Your task to perform on an android device: Search for sushi restaurants on Maps Image 0: 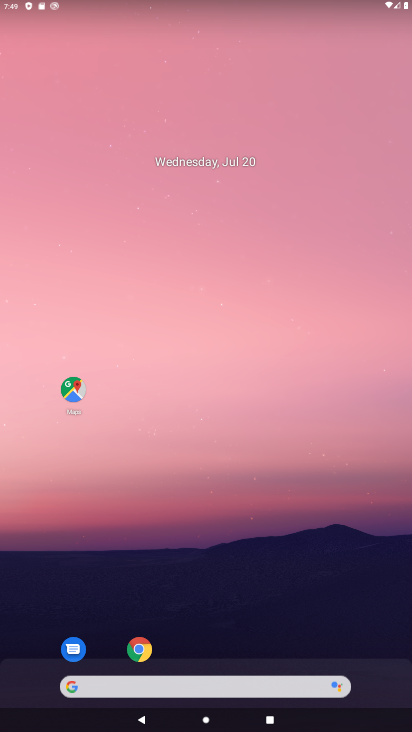
Step 0: click (73, 390)
Your task to perform on an android device: Search for sushi restaurants on Maps Image 1: 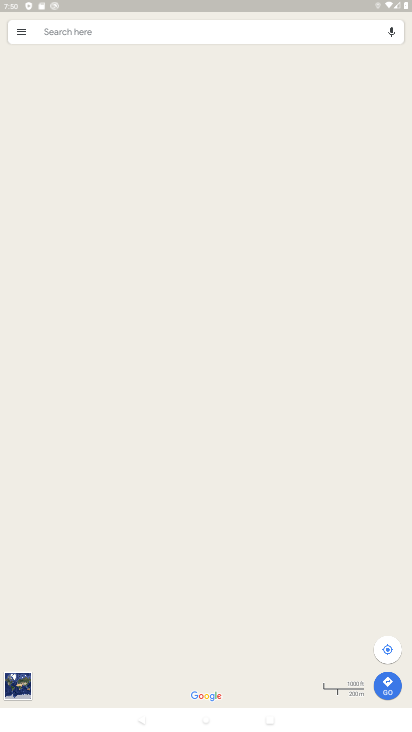
Step 1: click (164, 32)
Your task to perform on an android device: Search for sushi restaurants on Maps Image 2: 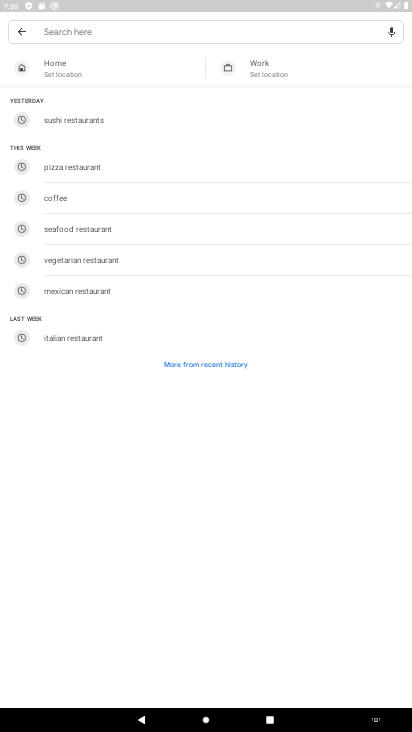
Step 2: type "sushi restaurants"
Your task to perform on an android device: Search for sushi restaurants on Maps Image 3: 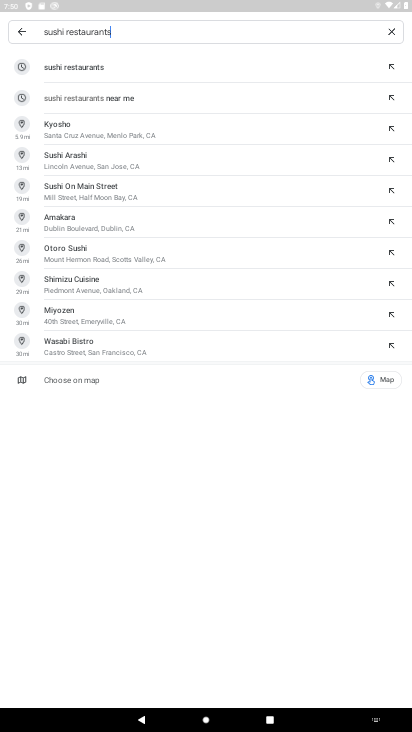
Step 3: click (91, 67)
Your task to perform on an android device: Search for sushi restaurants on Maps Image 4: 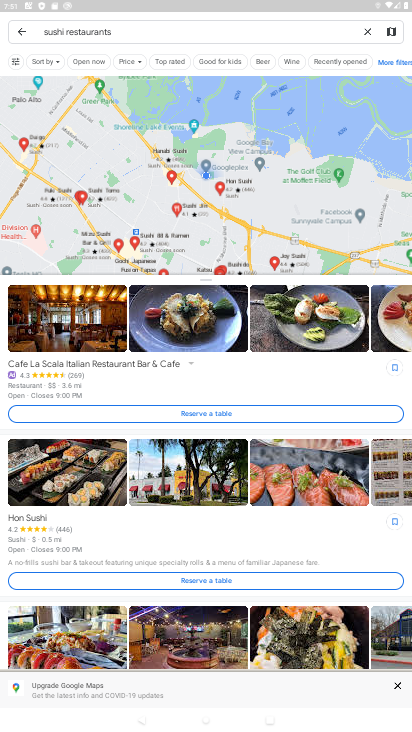
Step 4: task complete